Your task to perform on an android device: Open CNN.com Image 0: 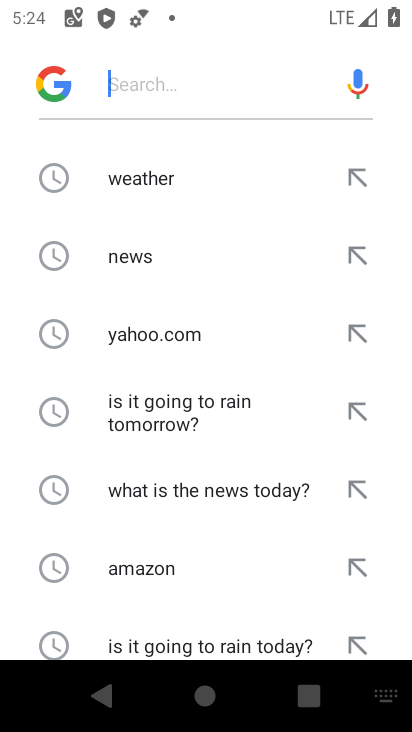
Step 0: press home button
Your task to perform on an android device: Open CNN.com Image 1: 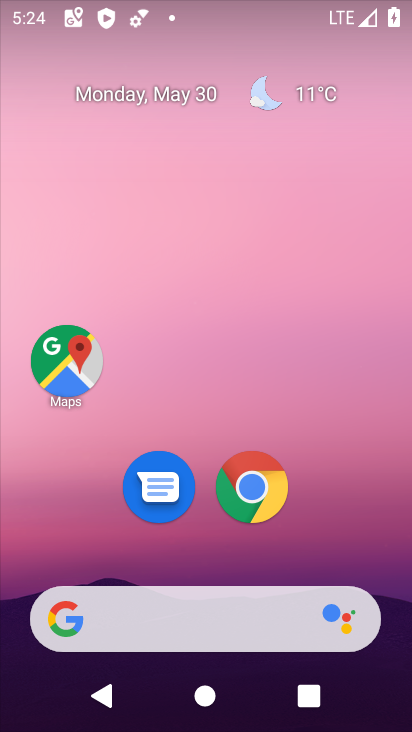
Step 1: click (257, 484)
Your task to perform on an android device: Open CNN.com Image 2: 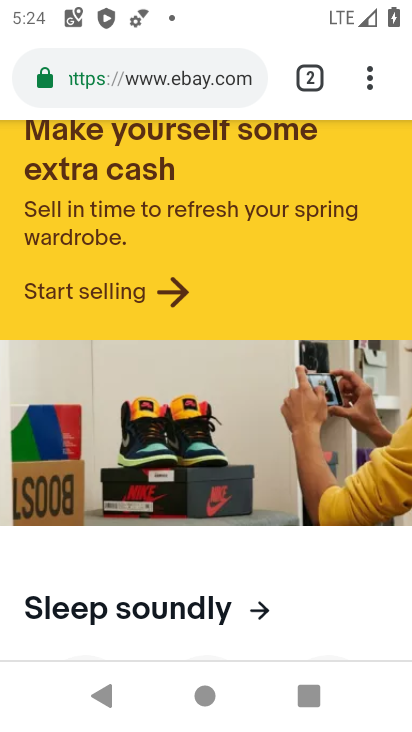
Step 2: click (253, 69)
Your task to perform on an android device: Open CNN.com Image 3: 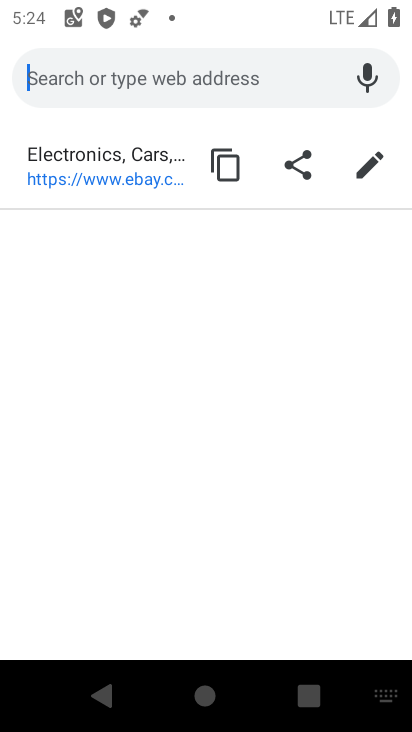
Step 3: type "cnn.com"
Your task to perform on an android device: Open CNN.com Image 4: 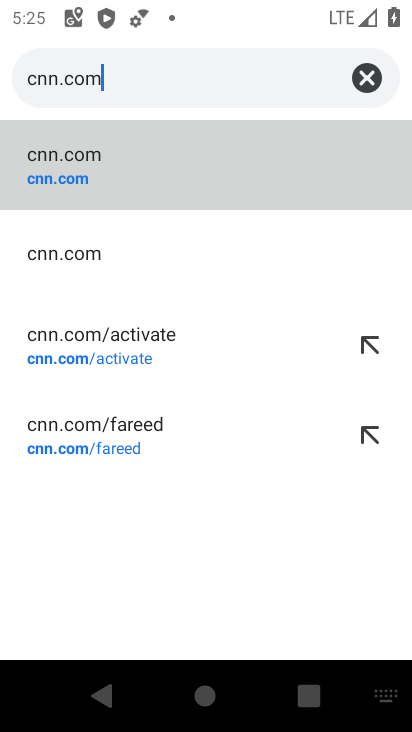
Step 4: click (58, 159)
Your task to perform on an android device: Open CNN.com Image 5: 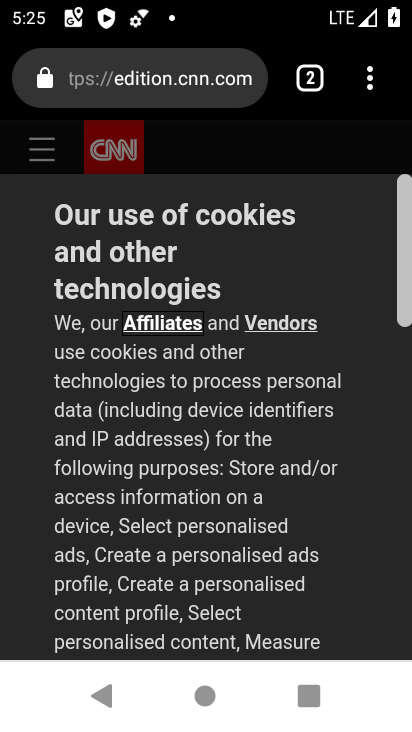
Step 5: drag from (352, 595) to (292, 157)
Your task to perform on an android device: Open CNN.com Image 6: 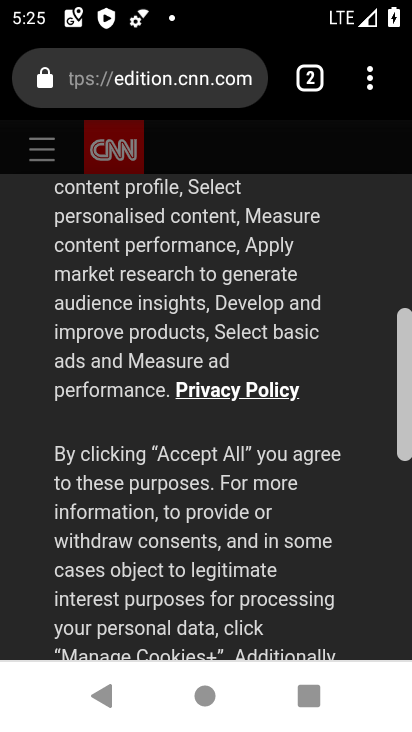
Step 6: drag from (344, 550) to (279, 99)
Your task to perform on an android device: Open CNN.com Image 7: 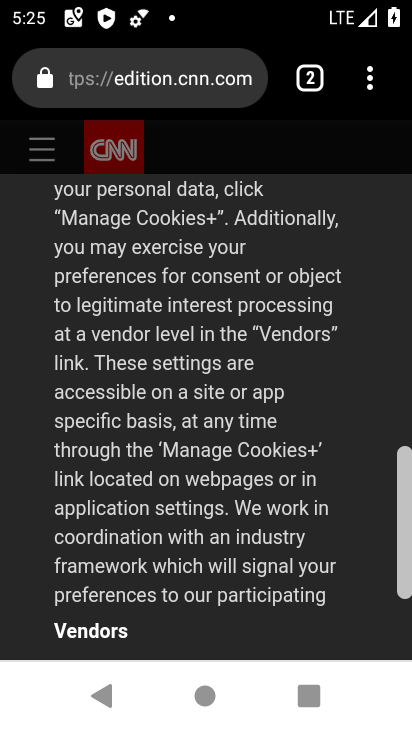
Step 7: drag from (342, 504) to (286, 46)
Your task to perform on an android device: Open CNN.com Image 8: 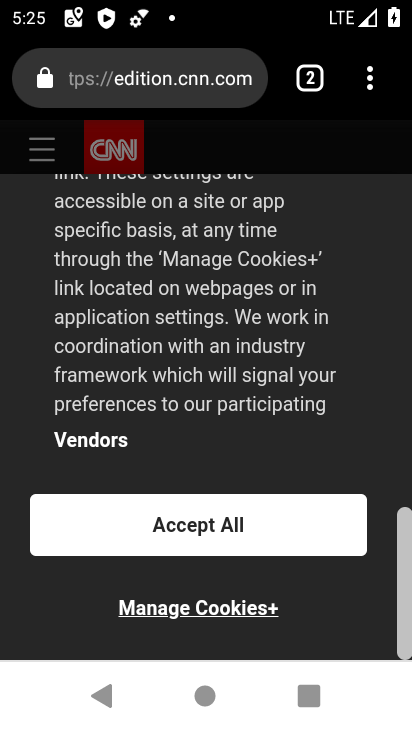
Step 8: click (203, 531)
Your task to perform on an android device: Open CNN.com Image 9: 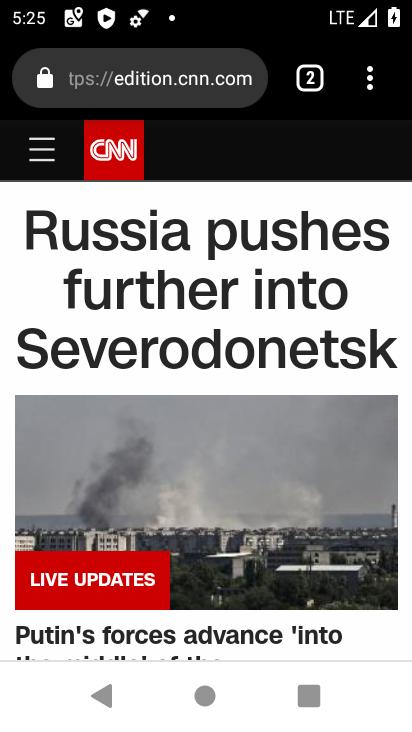
Step 9: task complete